Your task to perform on an android device: Go to wifi settings Image 0: 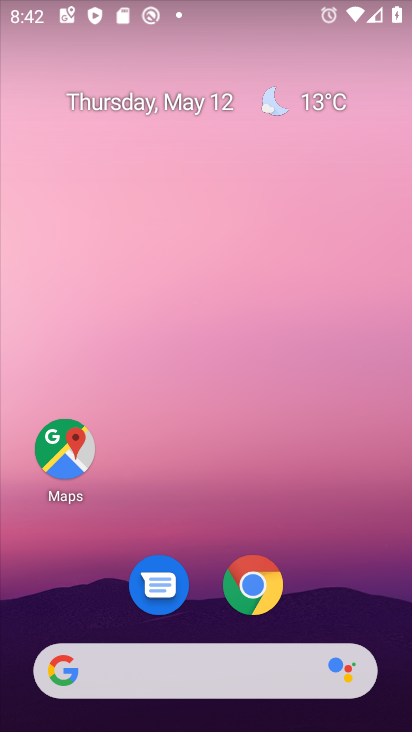
Step 0: drag from (207, 490) to (228, 23)
Your task to perform on an android device: Go to wifi settings Image 1: 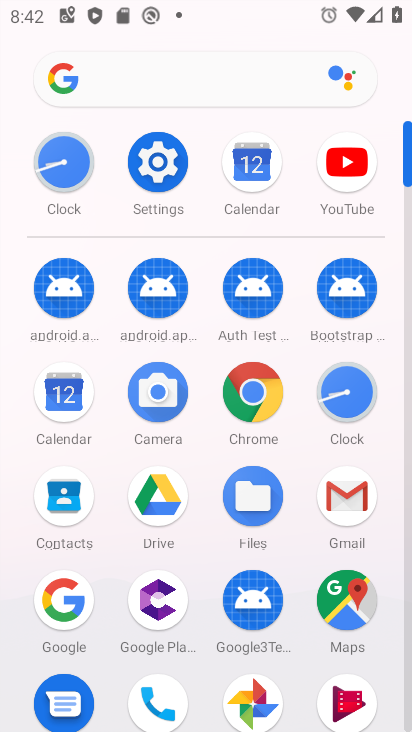
Step 1: click (159, 162)
Your task to perform on an android device: Go to wifi settings Image 2: 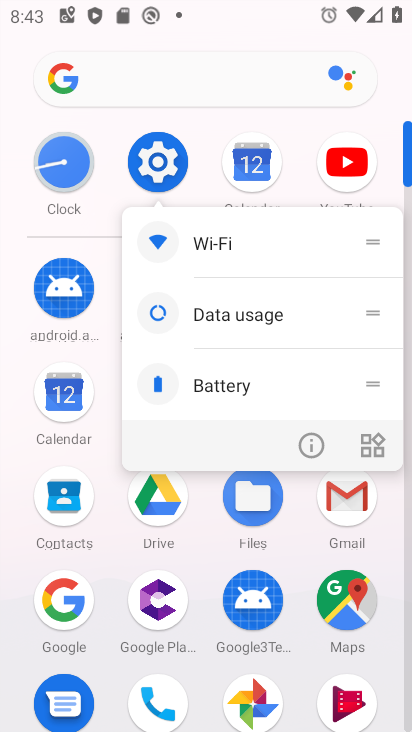
Step 2: click (159, 160)
Your task to perform on an android device: Go to wifi settings Image 3: 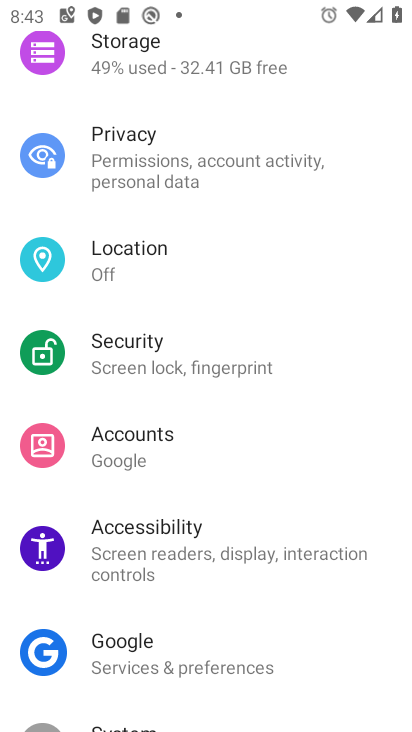
Step 3: drag from (162, 153) to (241, 596)
Your task to perform on an android device: Go to wifi settings Image 4: 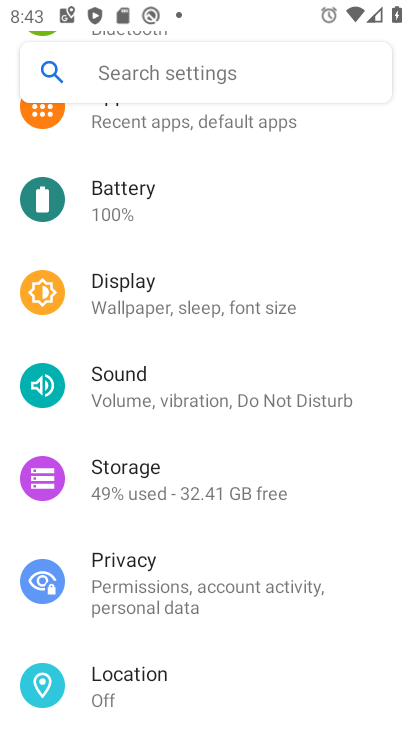
Step 4: drag from (212, 226) to (222, 652)
Your task to perform on an android device: Go to wifi settings Image 5: 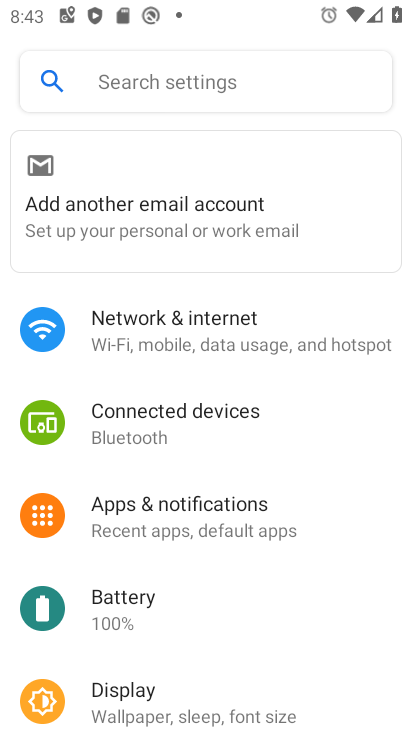
Step 5: click (223, 335)
Your task to perform on an android device: Go to wifi settings Image 6: 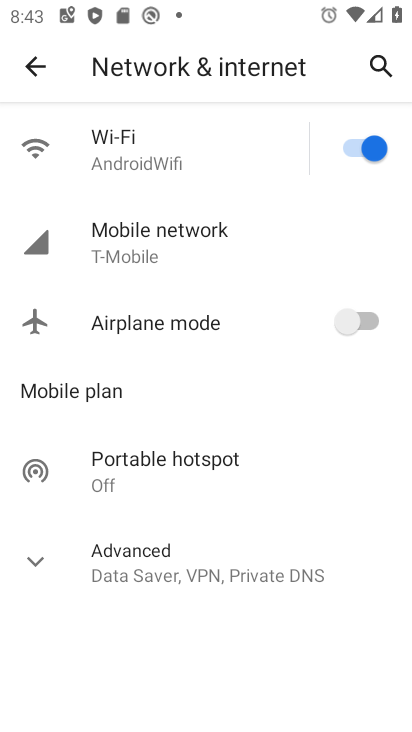
Step 6: click (144, 148)
Your task to perform on an android device: Go to wifi settings Image 7: 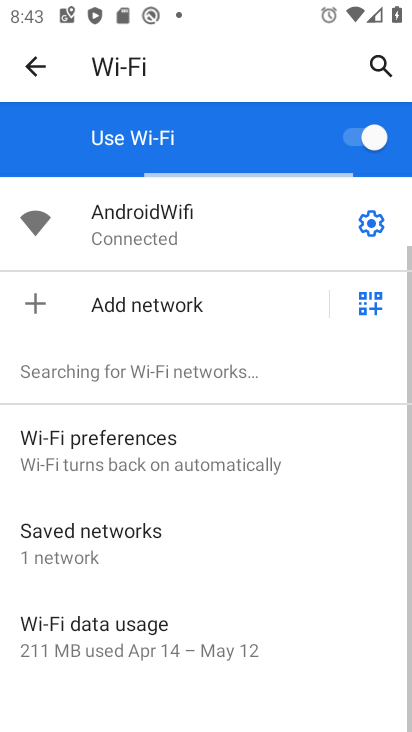
Step 7: task complete